Your task to perform on an android device: turn on the 24-hour format for clock Image 0: 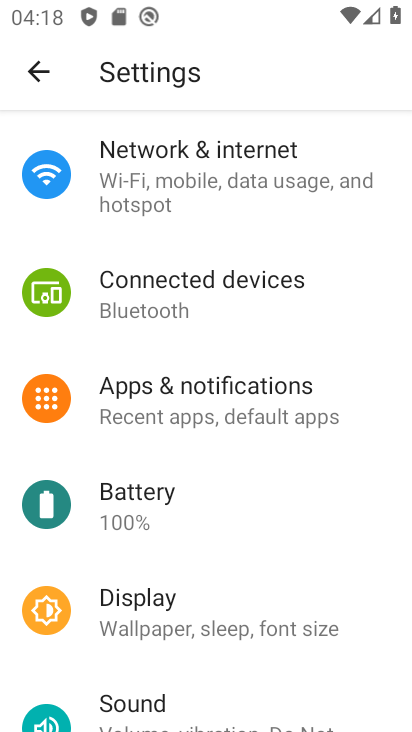
Step 0: press home button
Your task to perform on an android device: turn on the 24-hour format for clock Image 1: 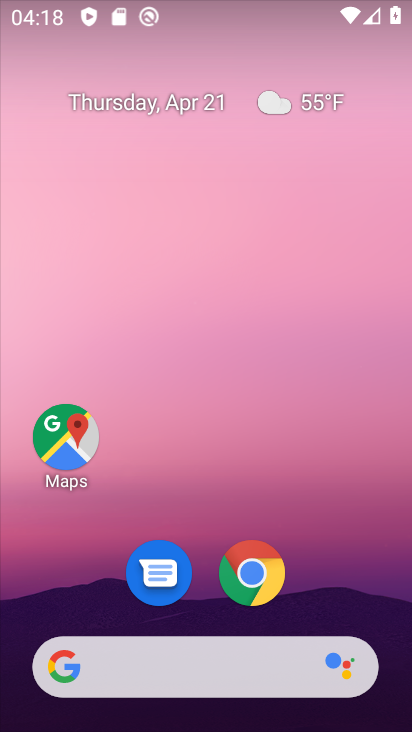
Step 1: drag from (225, 626) to (267, 109)
Your task to perform on an android device: turn on the 24-hour format for clock Image 2: 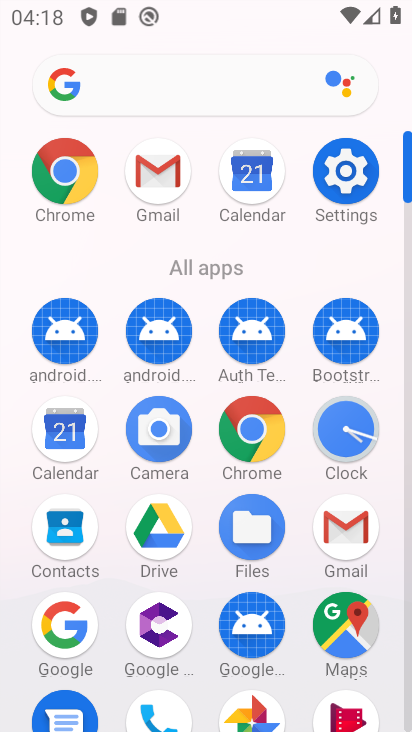
Step 2: click (354, 428)
Your task to perform on an android device: turn on the 24-hour format for clock Image 3: 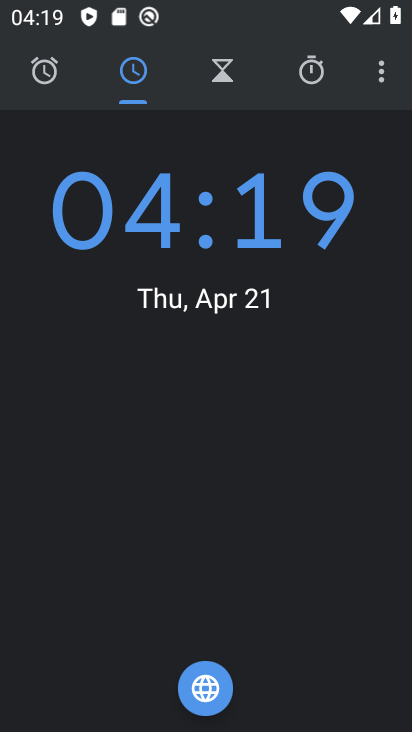
Step 3: click (383, 70)
Your task to perform on an android device: turn on the 24-hour format for clock Image 4: 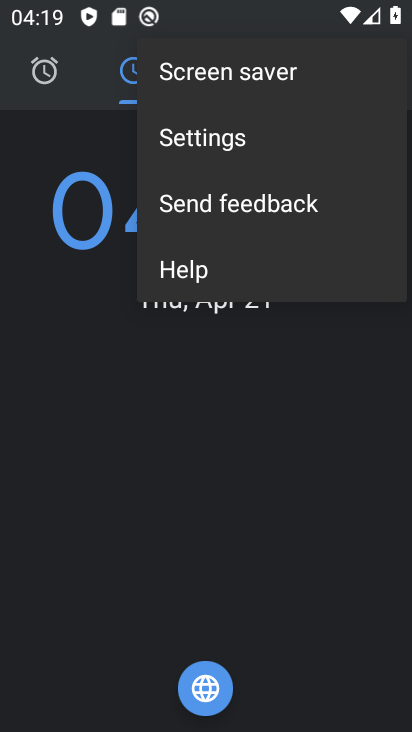
Step 4: click (252, 150)
Your task to perform on an android device: turn on the 24-hour format for clock Image 5: 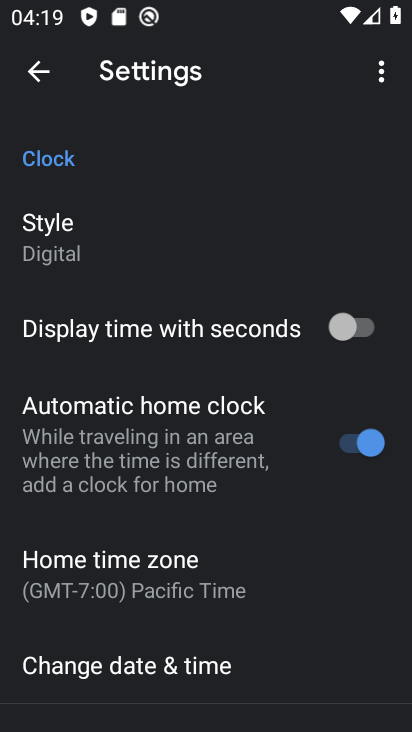
Step 5: drag from (265, 582) to (250, 224)
Your task to perform on an android device: turn on the 24-hour format for clock Image 6: 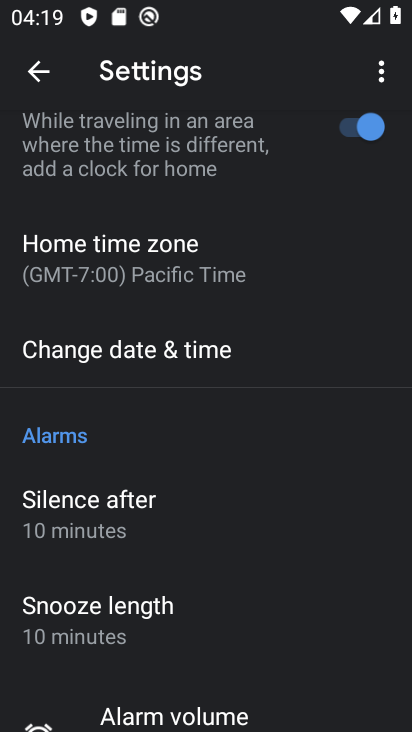
Step 6: click (134, 349)
Your task to perform on an android device: turn on the 24-hour format for clock Image 7: 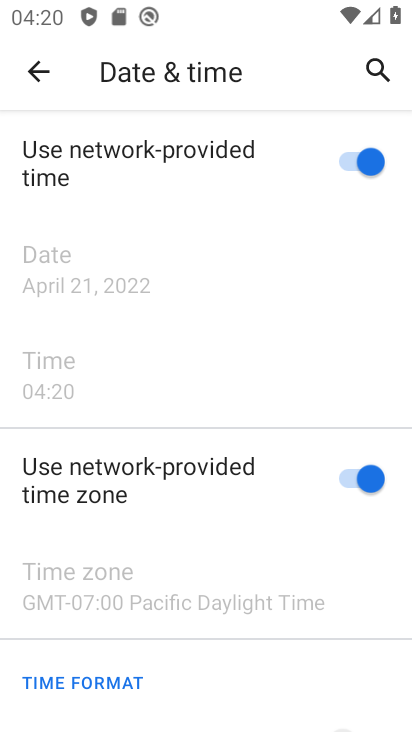
Step 7: task complete